Your task to perform on an android device: toggle pop-ups in chrome Image 0: 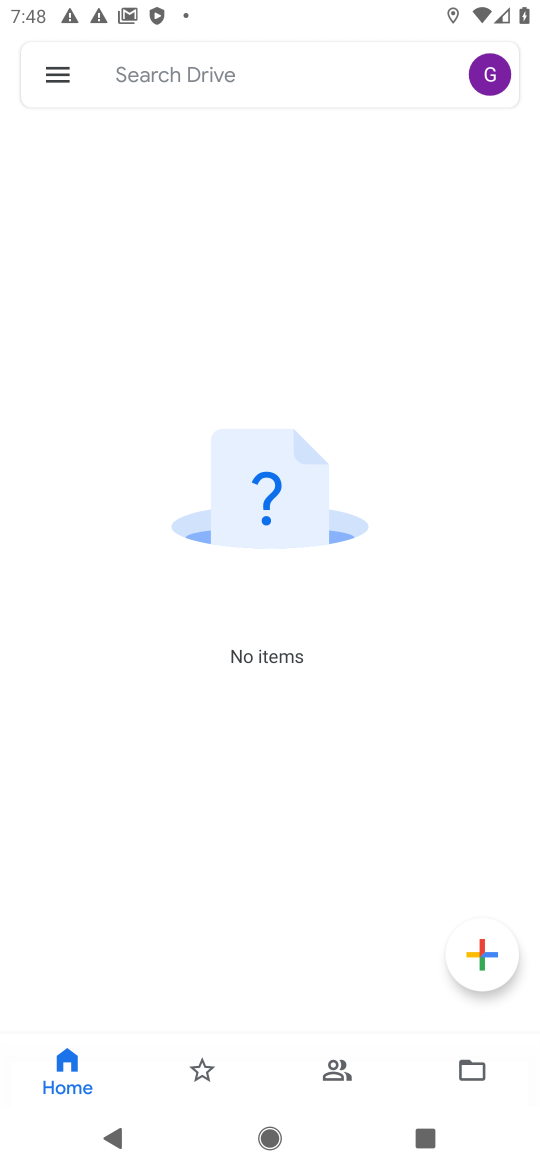
Step 0: press home button
Your task to perform on an android device: toggle pop-ups in chrome Image 1: 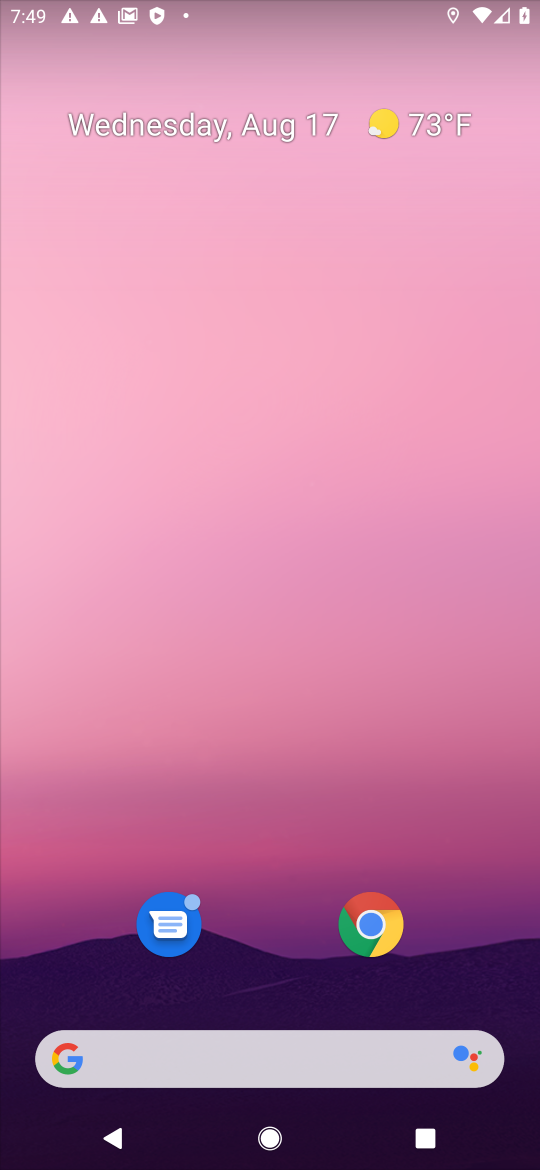
Step 1: click (361, 926)
Your task to perform on an android device: toggle pop-ups in chrome Image 2: 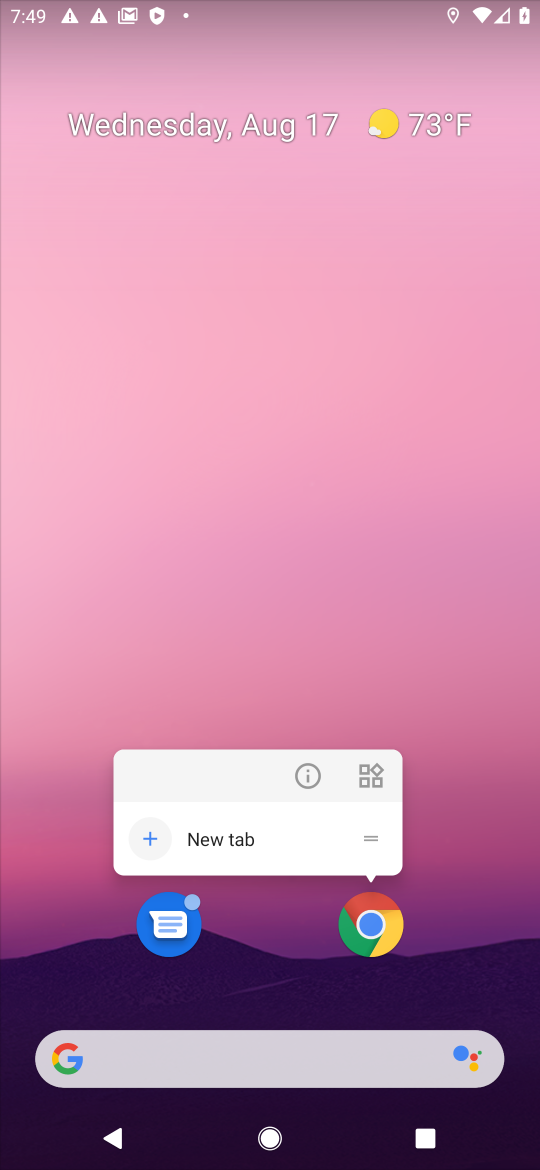
Step 2: click (307, 775)
Your task to perform on an android device: toggle pop-ups in chrome Image 3: 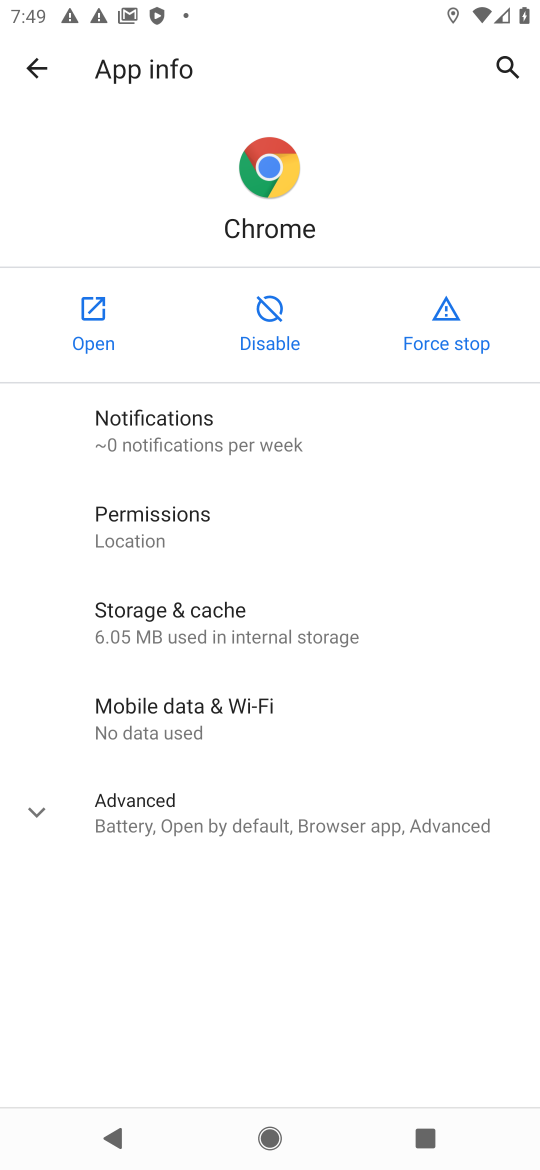
Step 3: click (173, 812)
Your task to perform on an android device: toggle pop-ups in chrome Image 4: 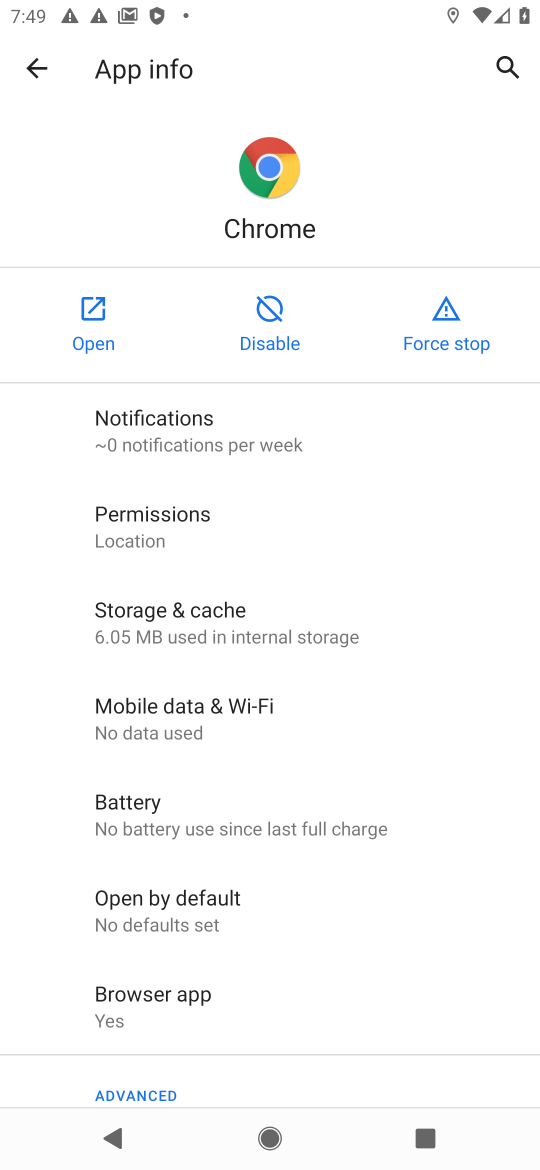
Step 4: click (39, 66)
Your task to perform on an android device: toggle pop-ups in chrome Image 5: 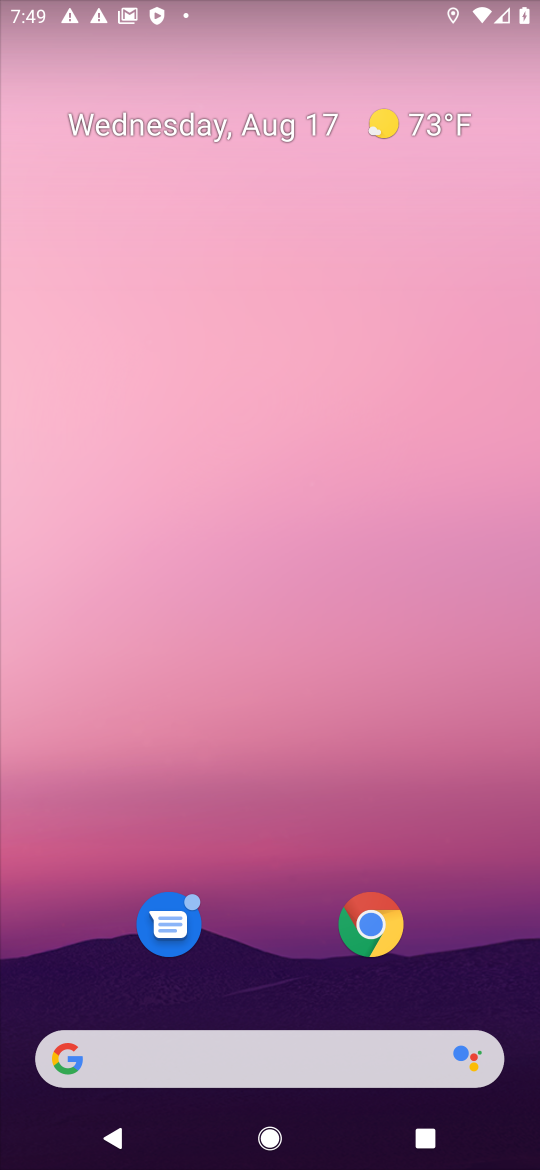
Step 5: drag from (301, 946) to (444, 108)
Your task to perform on an android device: toggle pop-ups in chrome Image 6: 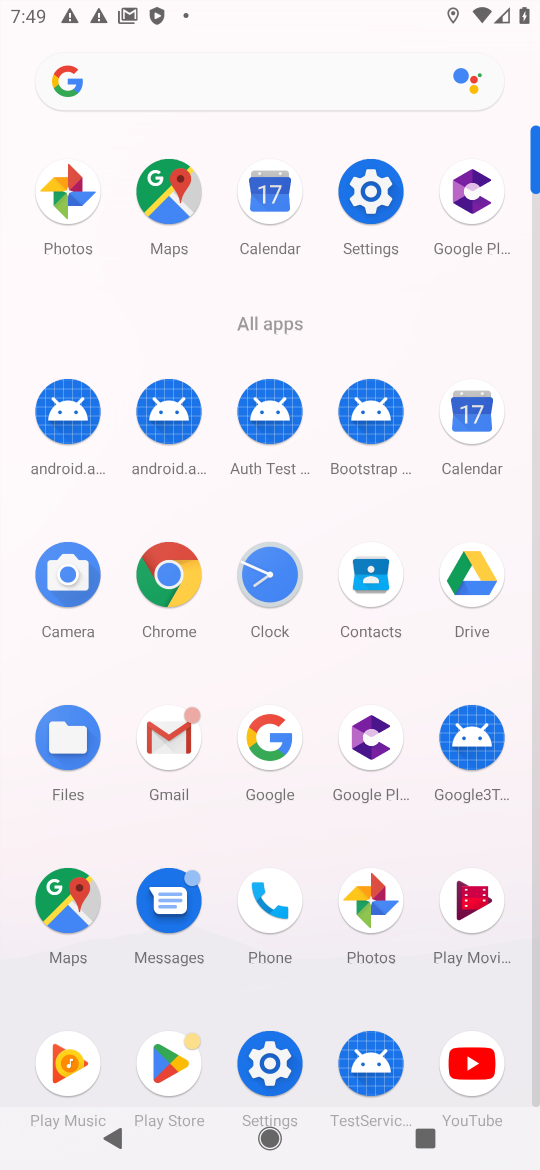
Step 6: click (175, 573)
Your task to perform on an android device: toggle pop-ups in chrome Image 7: 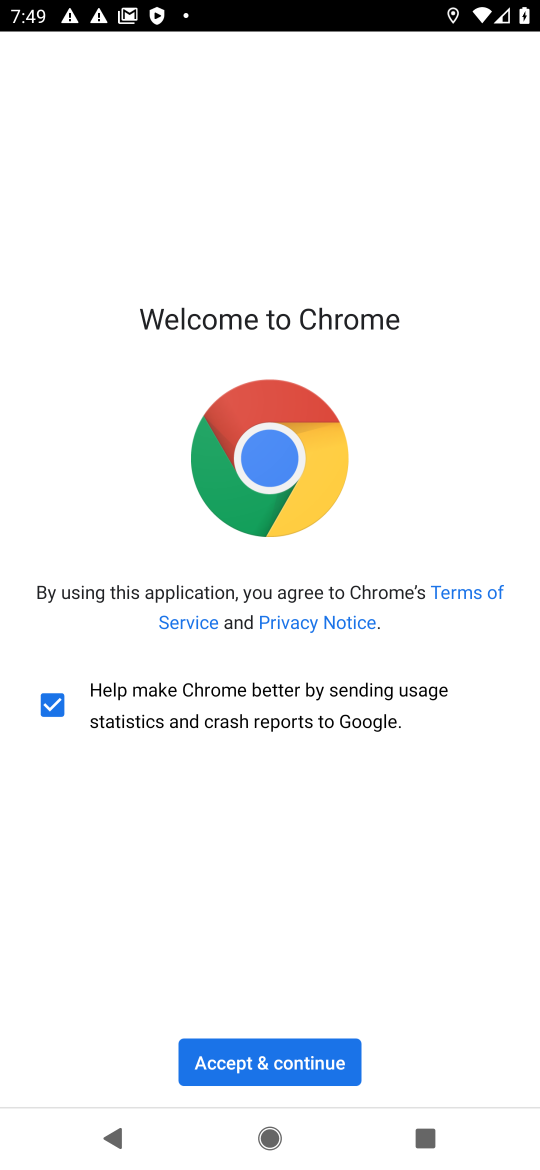
Step 7: click (270, 1052)
Your task to perform on an android device: toggle pop-ups in chrome Image 8: 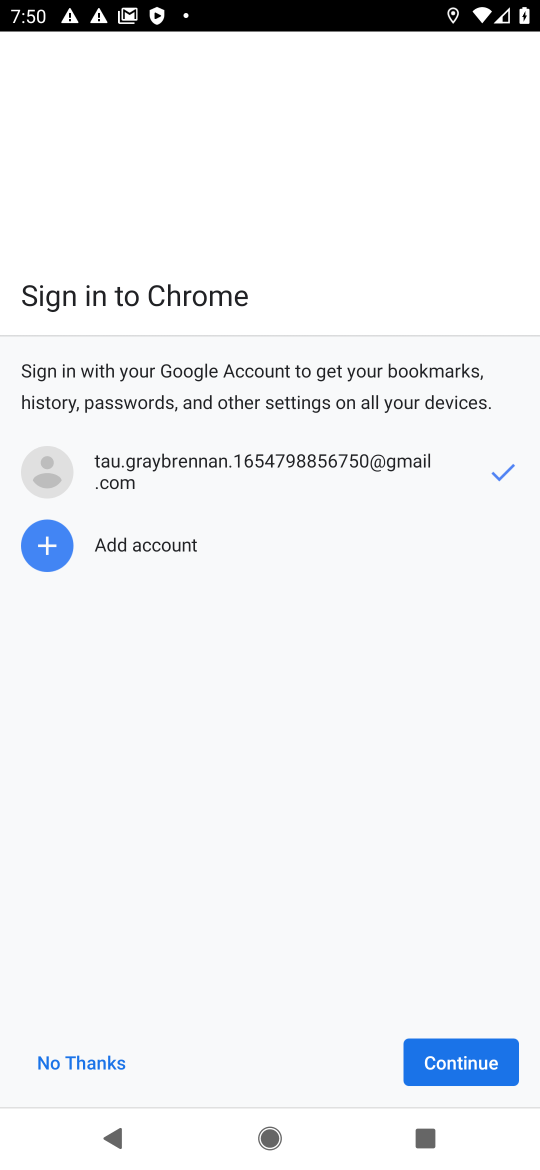
Step 8: click (464, 1057)
Your task to perform on an android device: toggle pop-ups in chrome Image 9: 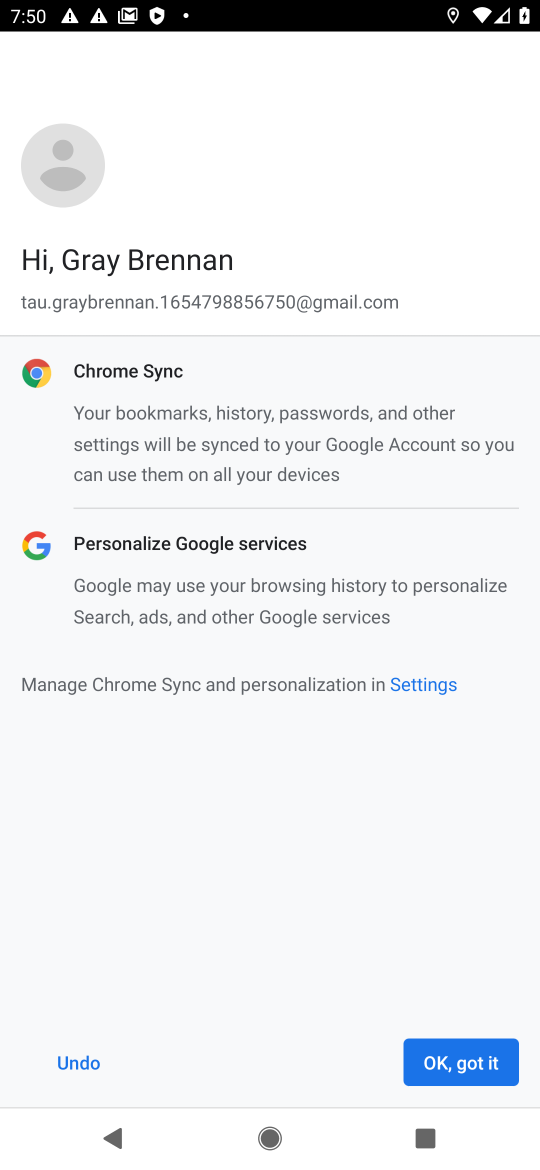
Step 9: click (469, 1073)
Your task to perform on an android device: toggle pop-ups in chrome Image 10: 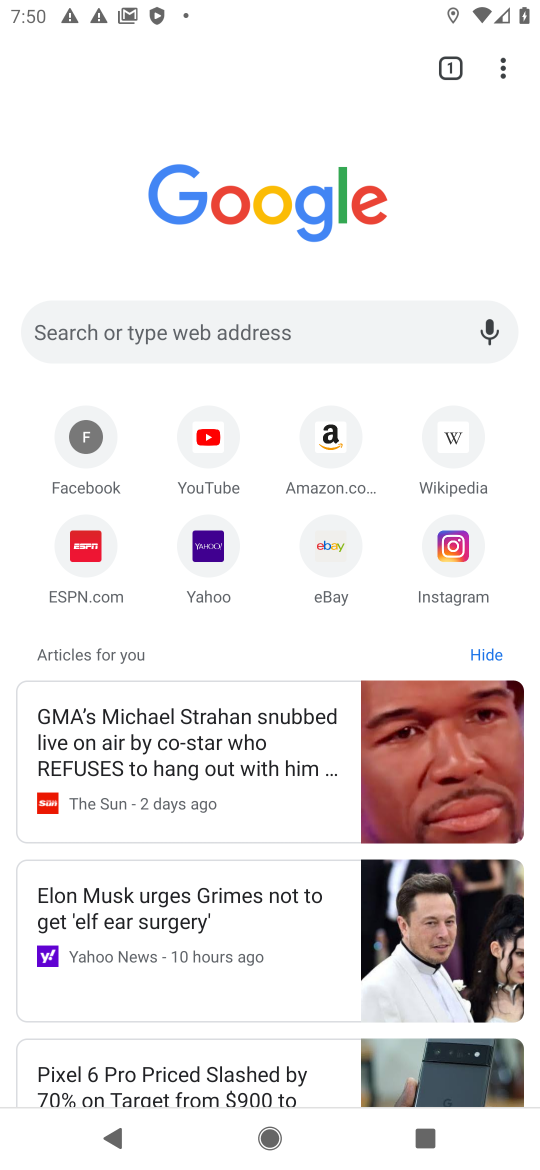
Step 10: click (503, 65)
Your task to perform on an android device: toggle pop-ups in chrome Image 11: 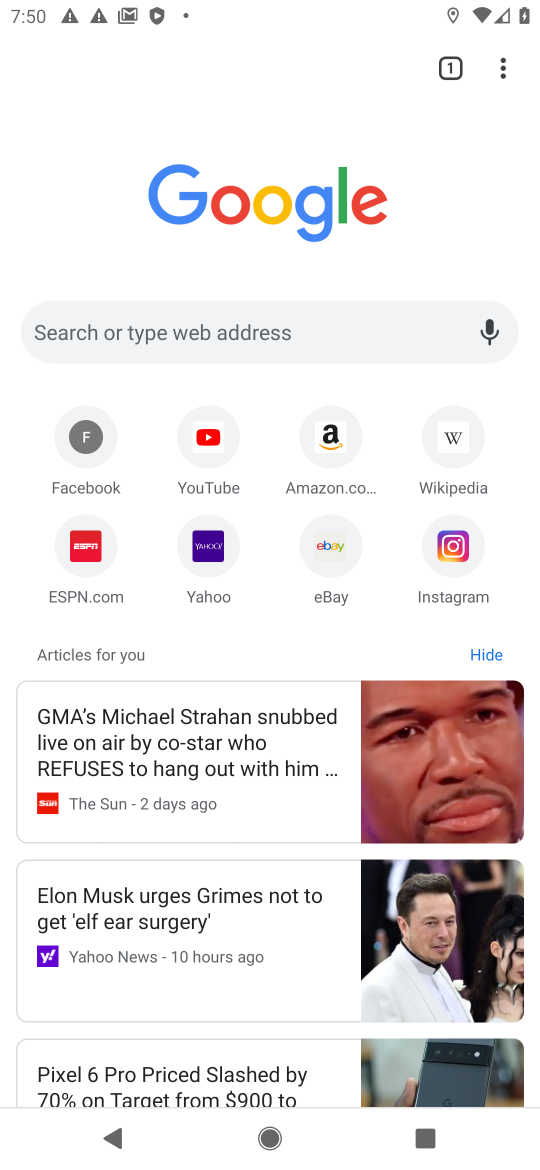
Step 11: click (503, 65)
Your task to perform on an android device: toggle pop-ups in chrome Image 12: 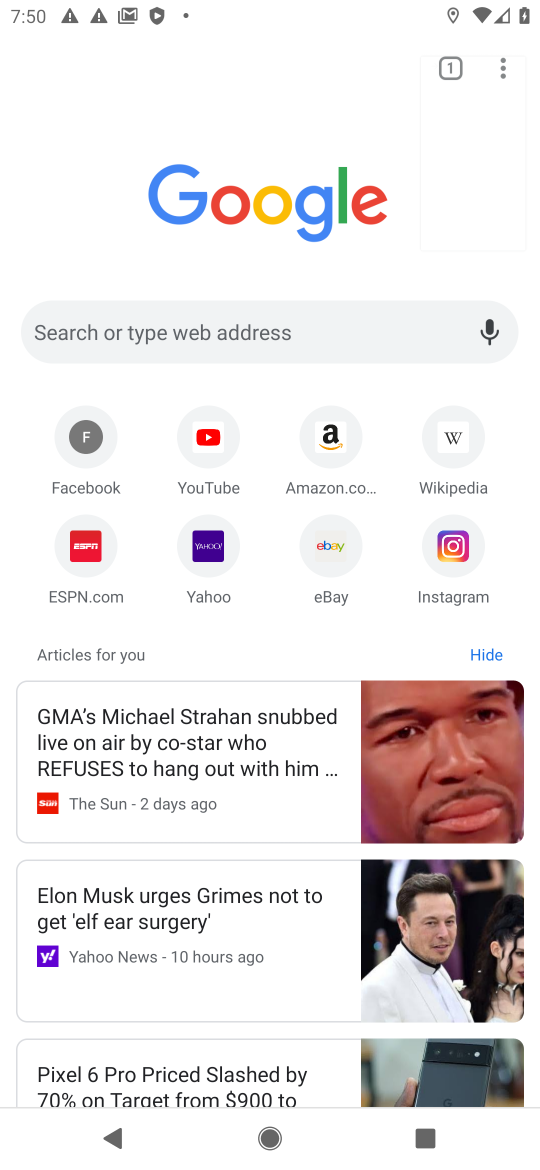
Step 12: drag from (503, 65) to (304, 561)
Your task to perform on an android device: toggle pop-ups in chrome Image 13: 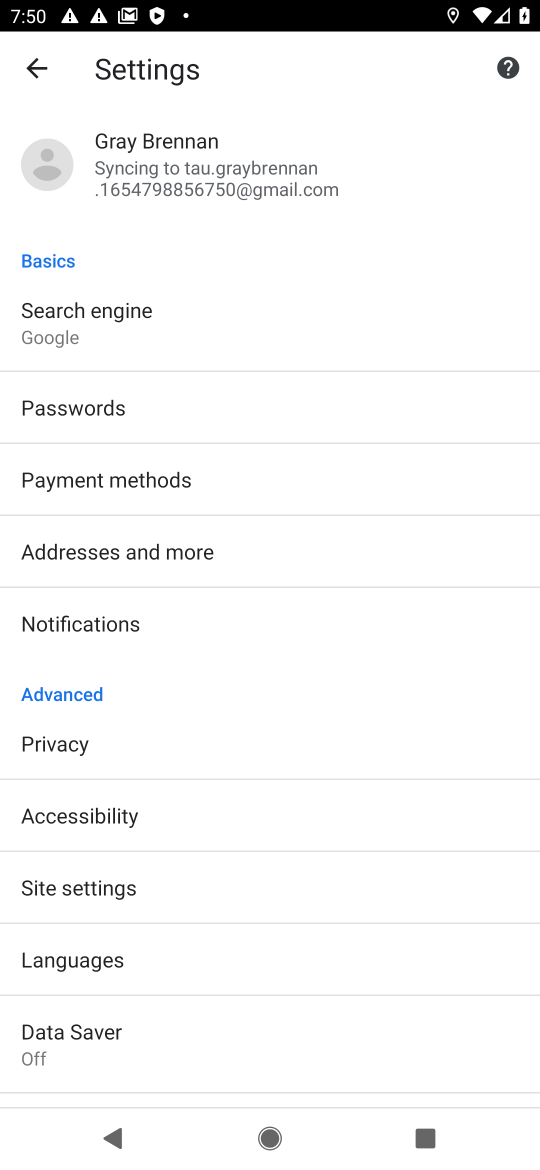
Step 13: drag from (156, 976) to (305, 594)
Your task to perform on an android device: toggle pop-ups in chrome Image 14: 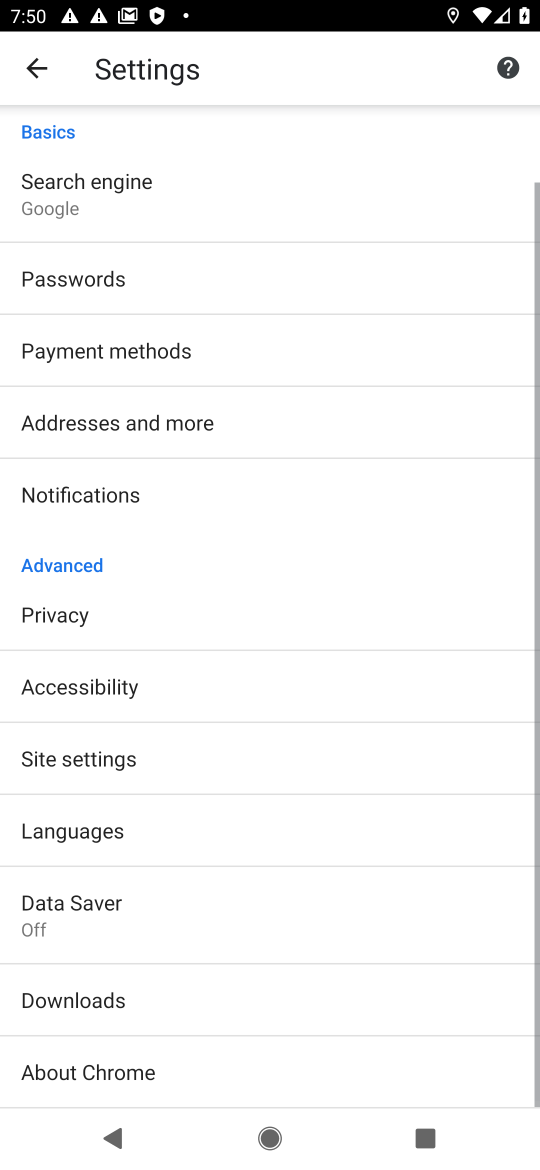
Step 14: click (126, 756)
Your task to perform on an android device: toggle pop-ups in chrome Image 15: 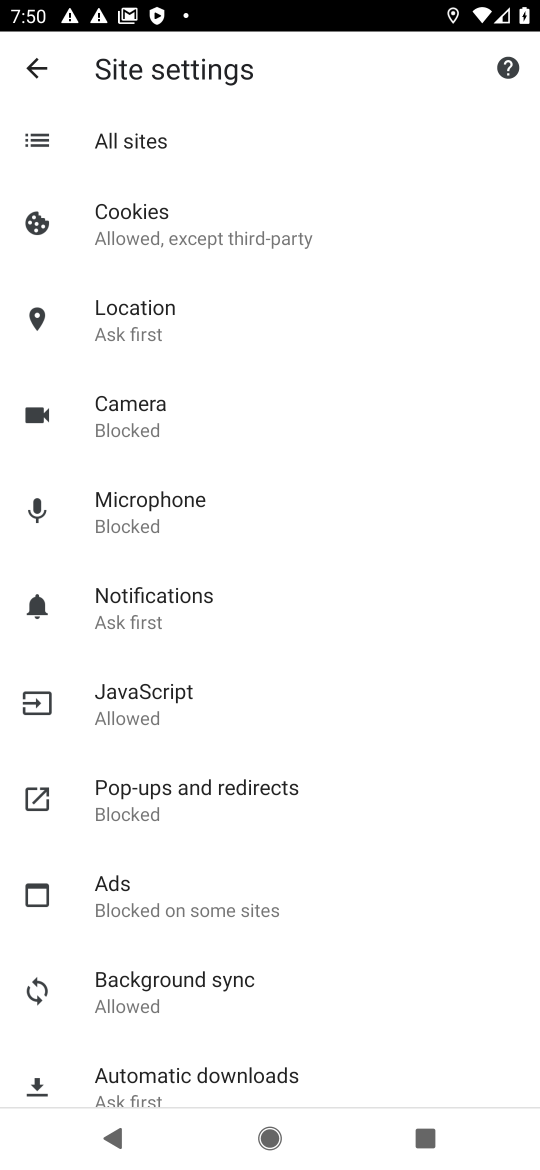
Step 15: click (163, 787)
Your task to perform on an android device: toggle pop-ups in chrome Image 16: 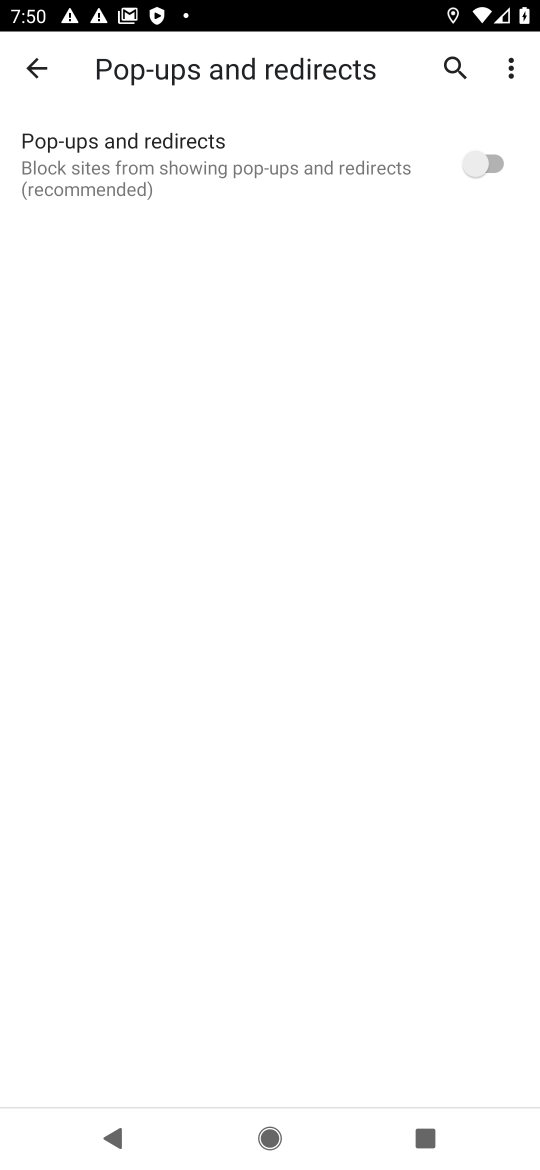
Step 16: click (409, 183)
Your task to perform on an android device: toggle pop-ups in chrome Image 17: 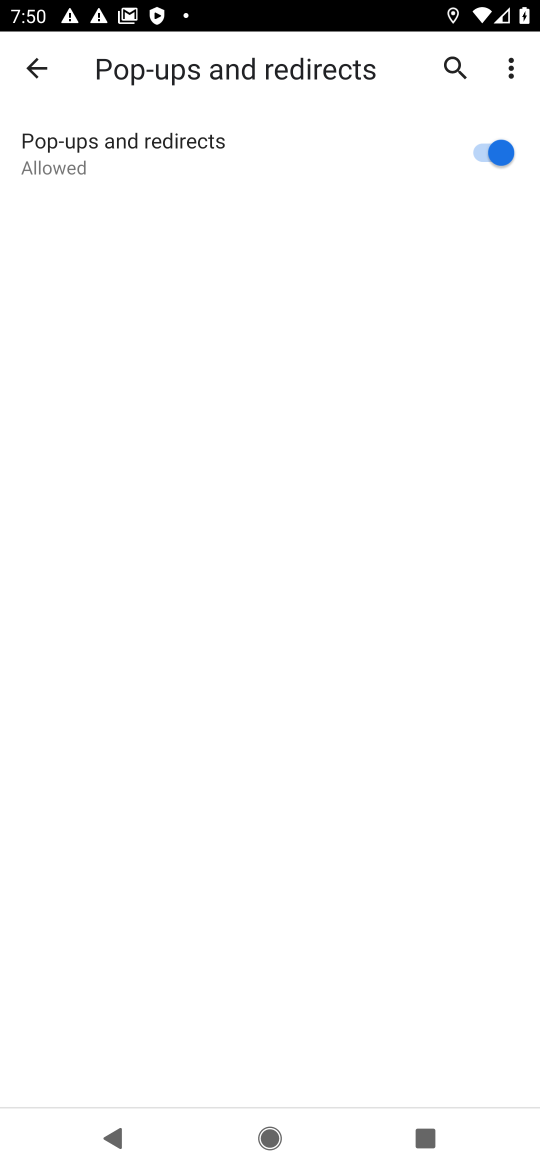
Step 17: task complete